Your task to perform on an android device: Turn off the flashlight Image 0: 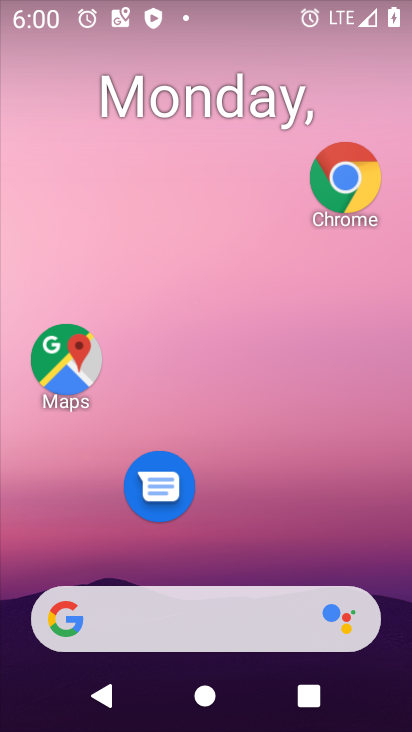
Step 0: drag from (281, 11) to (250, 421)
Your task to perform on an android device: Turn off the flashlight Image 1: 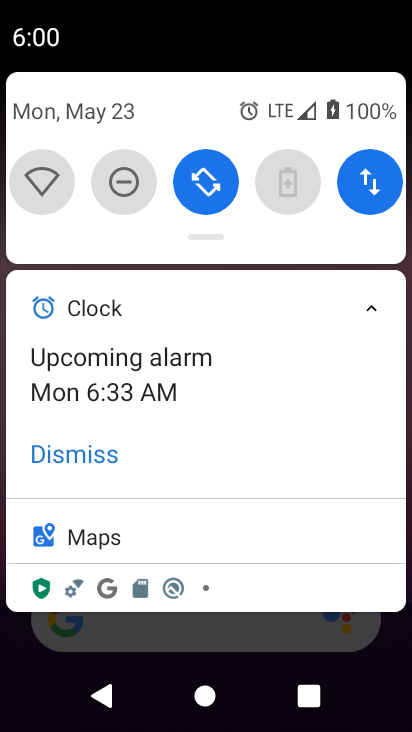
Step 1: task complete